Your task to perform on an android device: Open ESPN.com Image 0: 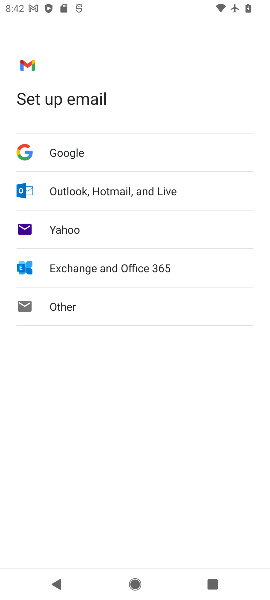
Step 0: press home button
Your task to perform on an android device: Open ESPN.com Image 1: 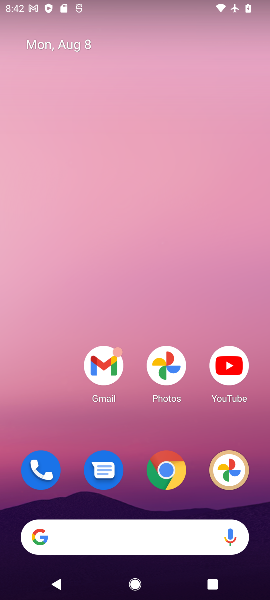
Step 1: click (153, 479)
Your task to perform on an android device: Open ESPN.com Image 2: 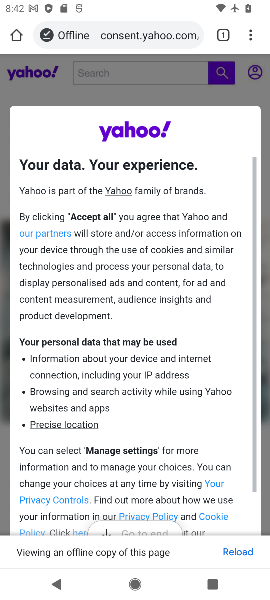
Step 2: click (219, 33)
Your task to perform on an android device: Open ESPN.com Image 3: 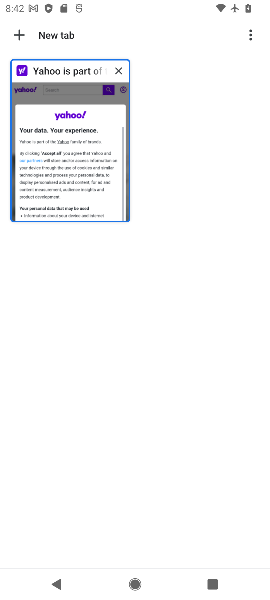
Step 3: click (17, 35)
Your task to perform on an android device: Open ESPN.com Image 4: 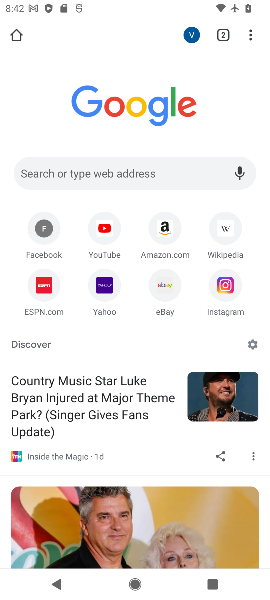
Step 4: click (42, 278)
Your task to perform on an android device: Open ESPN.com Image 5: 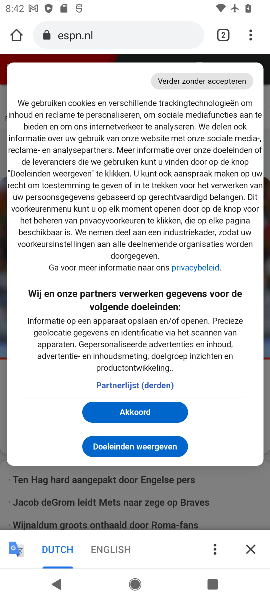
Step 5: task complete